Your task to perform on an android device: Open Amazon Image 0: 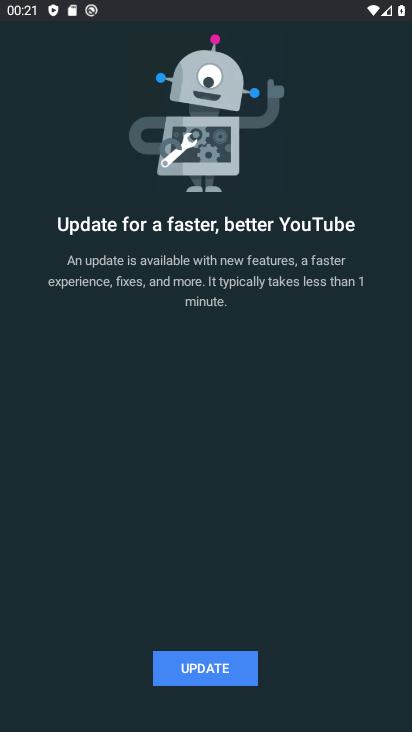
Step 0: press home button
Your task to perform on an android device: Open Amazon Image 1: 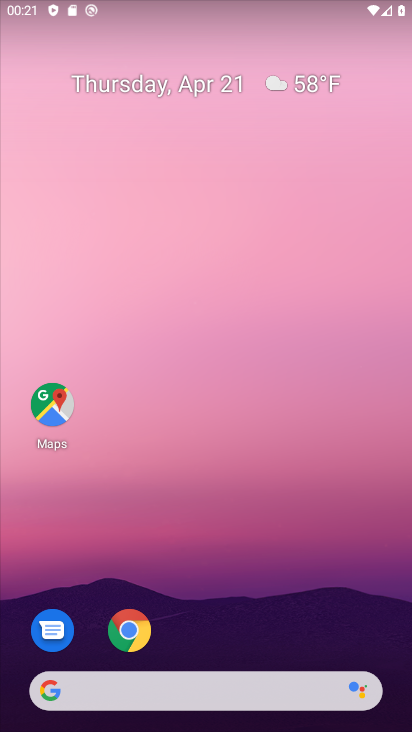
Step 1: drag from (160, 690) to (314, 90)
Your task to perform on an android device: Open Amazon Image 2: 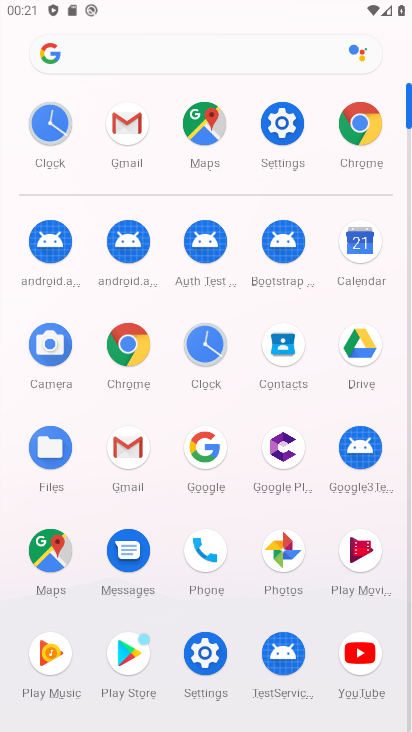
Step 2: click (361, 138)
Your task to perform on an android device: Open Amazon Image 3: 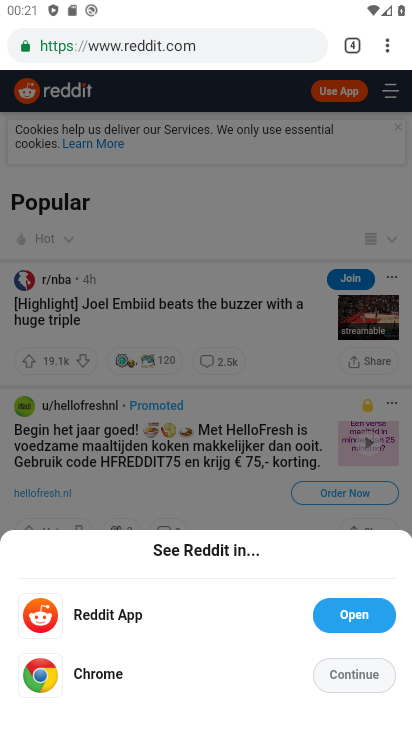
Step 3: click (385, 50)
Your task to perform on an android device: Open Amazon Image 4: 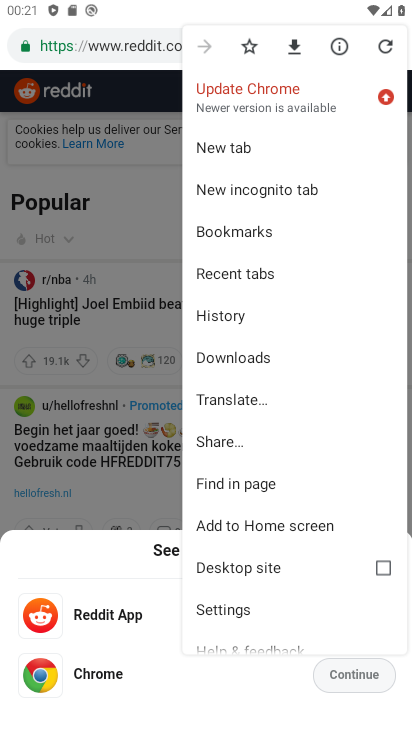
Step 4: click (226, 154)
Your task to perform on an android device: Open Amazon Image 5: 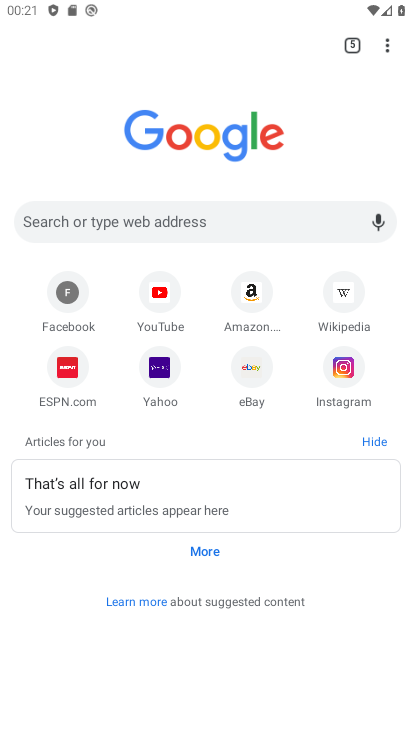
Step 5: click (252, 301)
Your task to perform on an android device: Open Amazon Image 6: 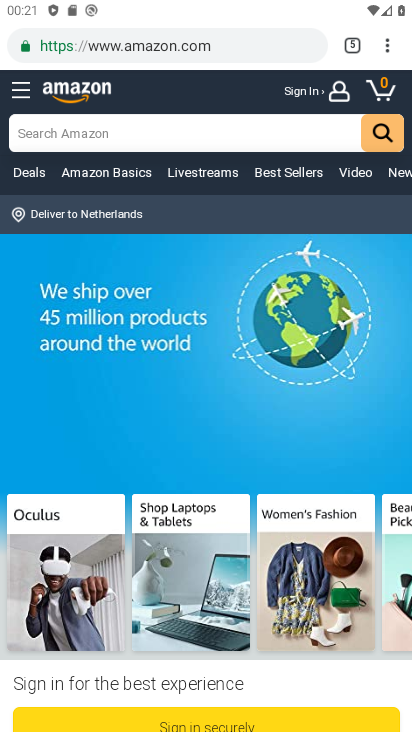
Step 6: task complete